Your task to perform on an android device: Open the calendar and show me this week's events? Image 0: 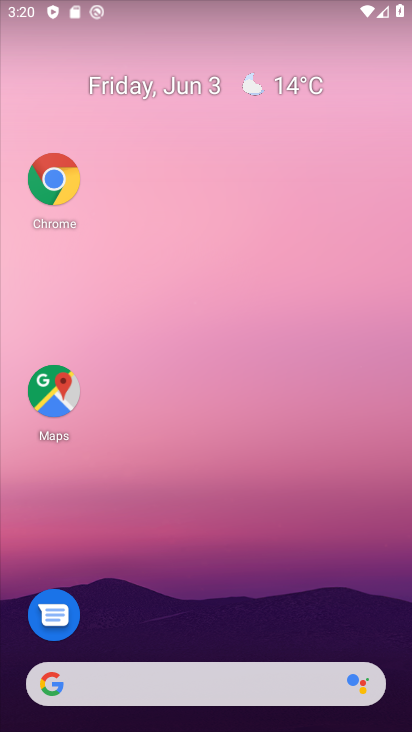
Step 0: drag from (118, 722) to (112, 73)
Your task to perform on an android device: Open the calendar and show me this week's events? Image 1: 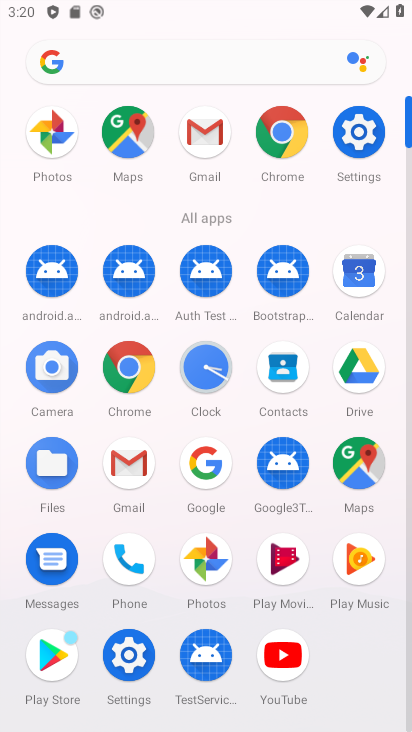
Step 1: click (366, 288)
Your task to perform on an android device: Open the calendar and show me this week's events? Image 2: 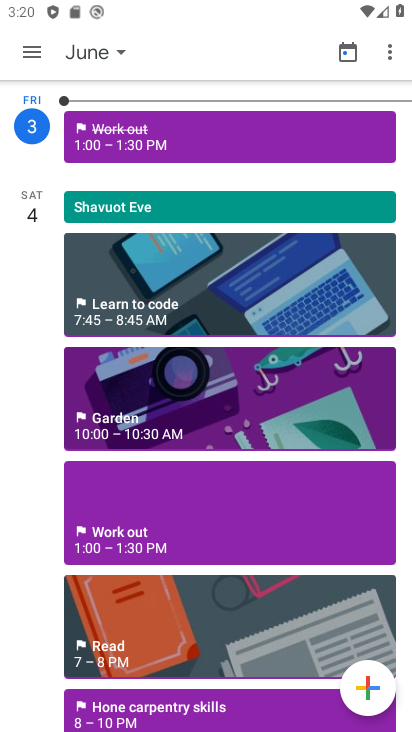
Step 2: click (26, 51)
Your task to perform on an android device: Open the calendar and show me this week's events? Image 3: 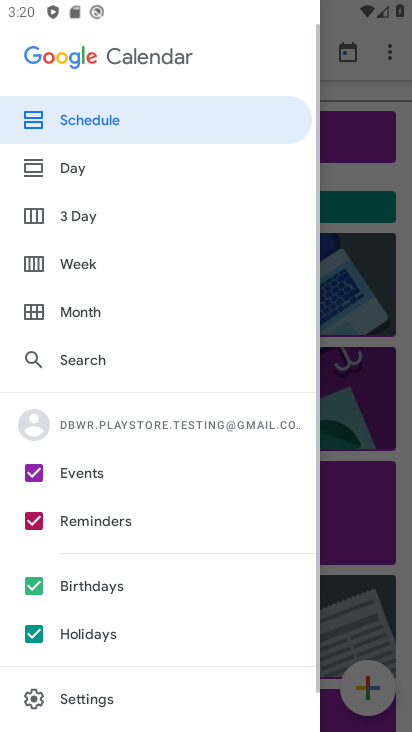
Step 3: click (74, 531)
Your task to perform on an android device: Open the calendar and show me this week's events? Image 4: 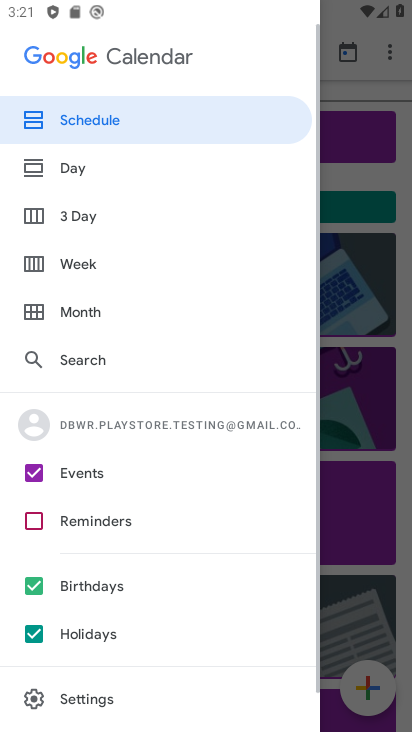
Step 4: click (34, 591)
Your task to perform on an android device: Open the calendar and show me this week's events? Image 5: 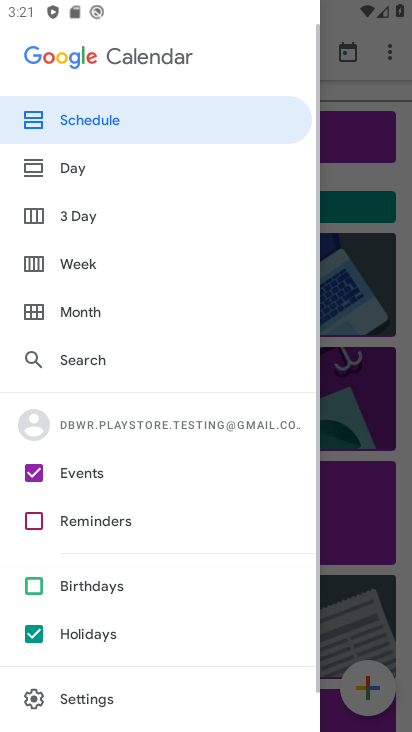
Step 5: click (35, 638)
Your task to perform on an android device: Open the calendar and show me this week's events? Image 6: 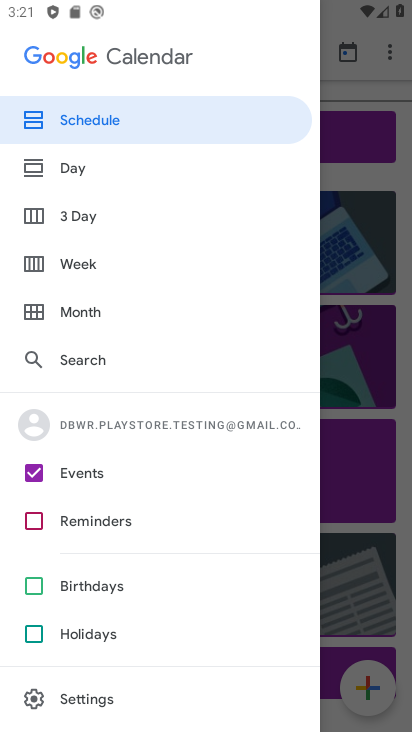
Step 6: click (81, 266)
Your task to perform on an android device: Open the calendar and show me this week's events? Image 7: 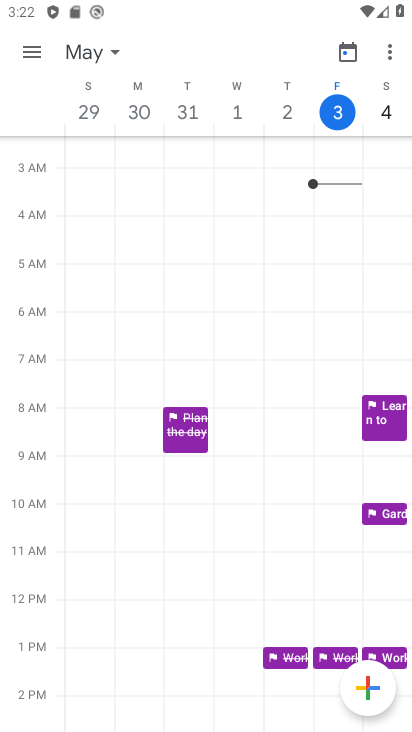
Step 7: task complete